Your task to perform on an android device: Open wifi settings Image 0: 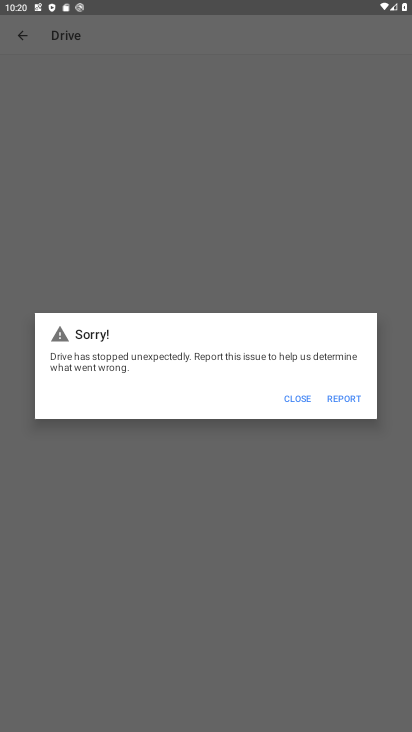
Step 0: press home button
Your task to perform on an android device: Open wifi settings Image 1: 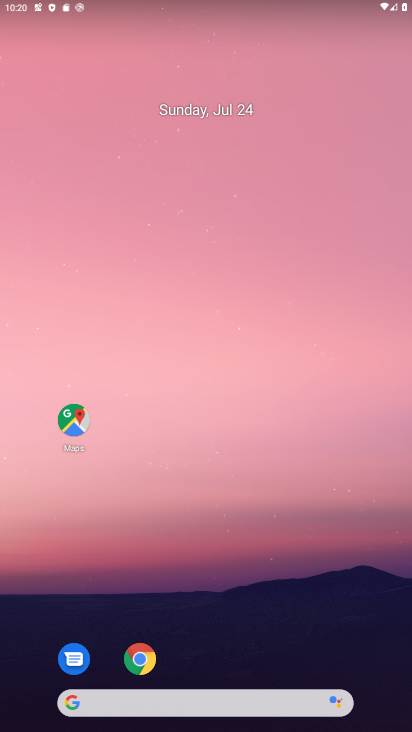
Step 1: drag from (374, 677) to (288, 2)
Your task to perform on an android device: Open wifi settings Image 2: 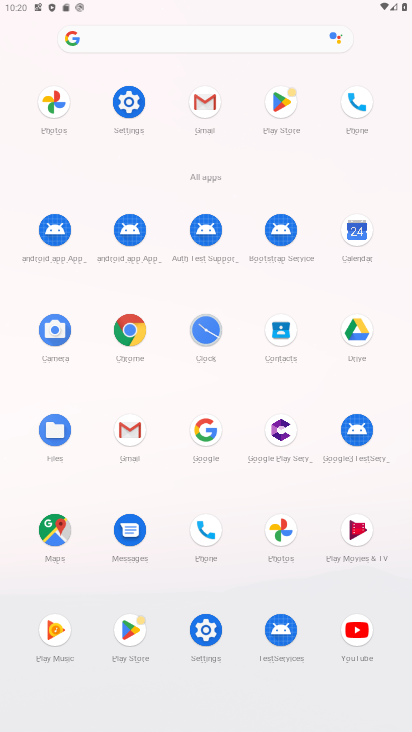
Step 2: click (133, 105)
Your task to perform on an android device: Open wifi settings Image 3: 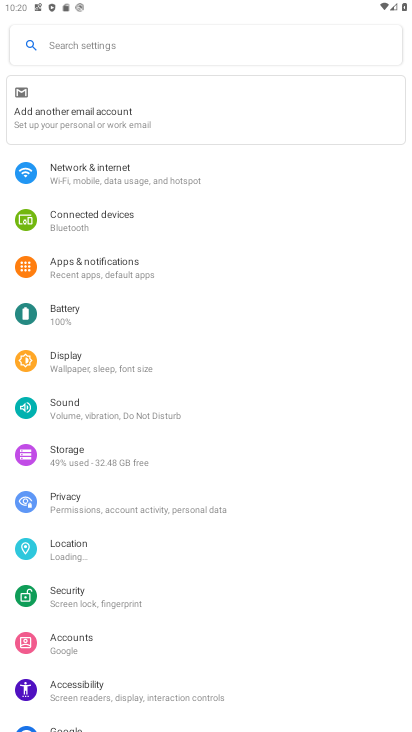
Step 3: click (128, 164)
Your task to perform on an android device: Open wifi settings Image 4: 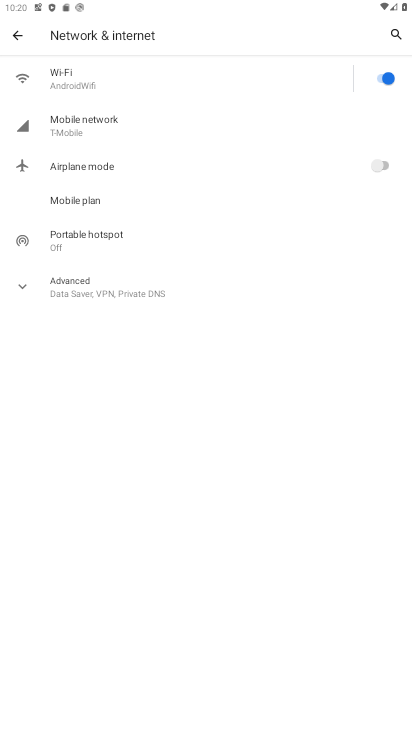
Step 4: click (239, 83)
Your task to perform on an android device: Open wifi settings Image 5: 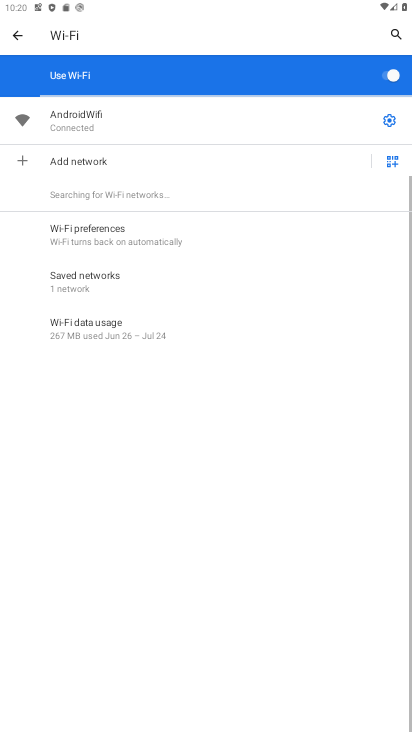
Step 5: click (385, 121)
Your task to perform on an android device: Open wifi settings Image 6: 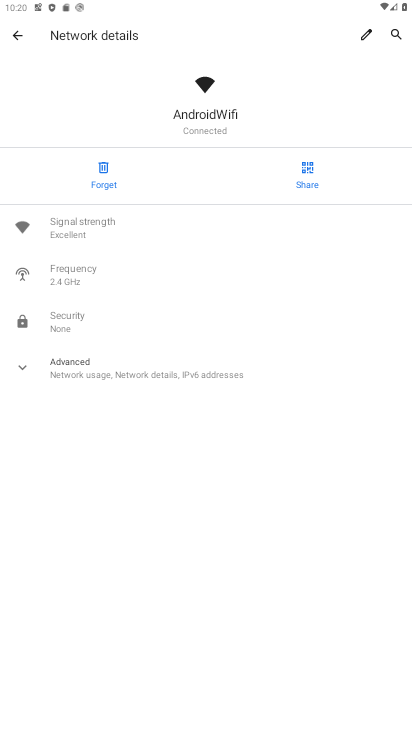
Step 6: task complete